Your task to perform on an android device: Turn off the flashlight Image 0: 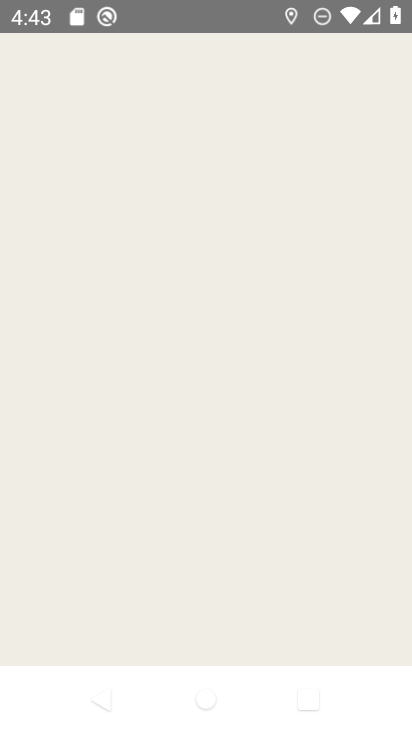
Step 0: click (333, 31)
Your task to perform on an android device: Turn off the flashlight Image 1: 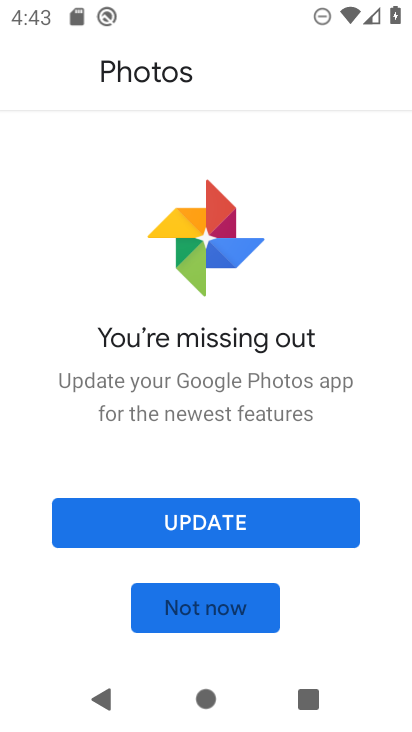
Step 1: press home button
Your task to perform on an android device: Turn off the flashlight Image 2: 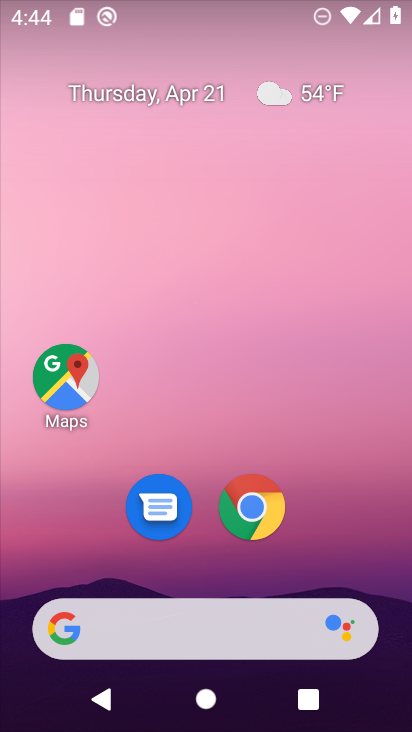
Step 2: drag from (334, 439) to (327, 24)
Your task to perform on an android device: Turn off the flashlight Image 3: 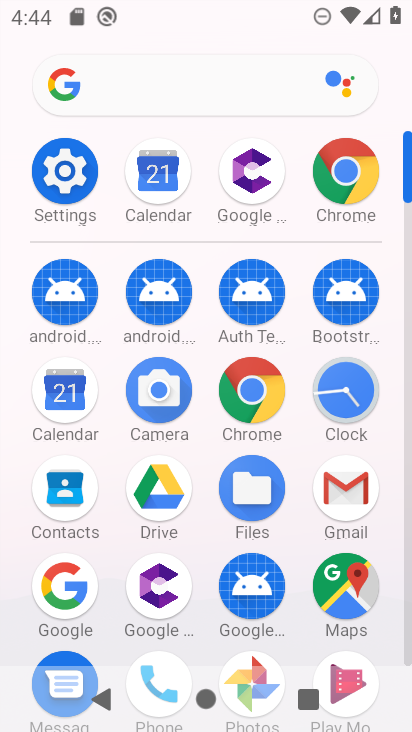
Step 3: click (65, 168)
Your task to perform on an android device: Turn off the flashlight Image 4: 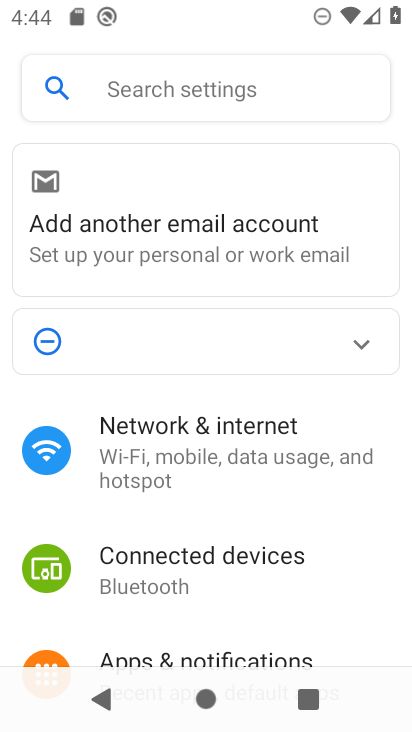
Step 4: task complete